Your task to perform on an android device: set an alarm Image 0: 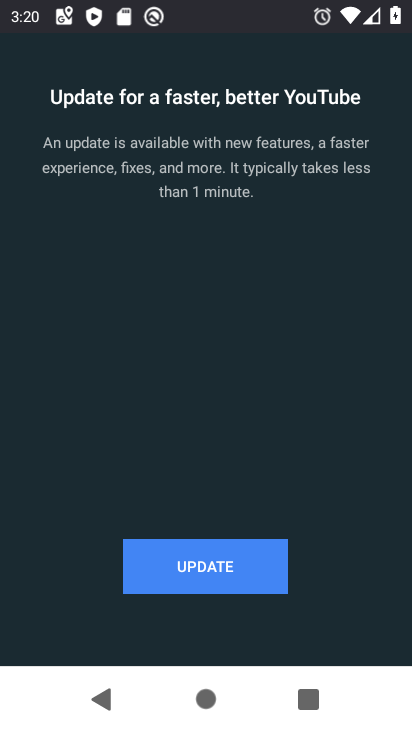
Step 0: press home button
Your task to perform on an android device: set an alarm Image 1: 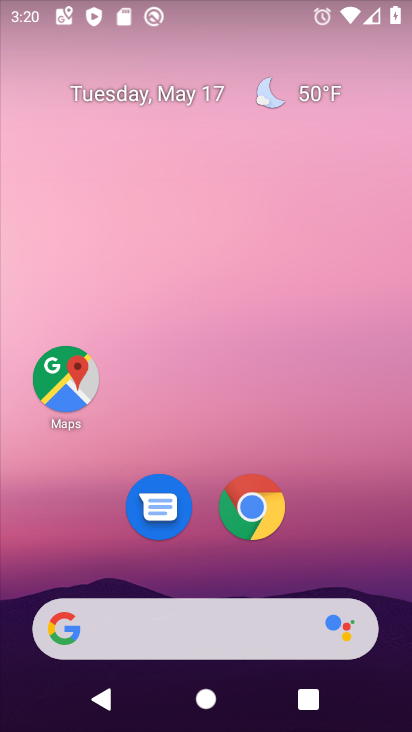
Step 1: drag from (333, 538) to (169, 57)
Your task to perform on an android device: set an alarm Image 2: 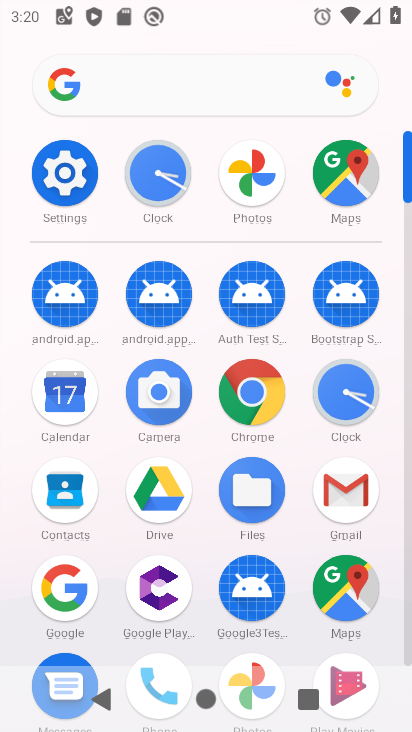
Step 2: click (162, 180)
Your task to perform on an android device: set an alarm Image 3: 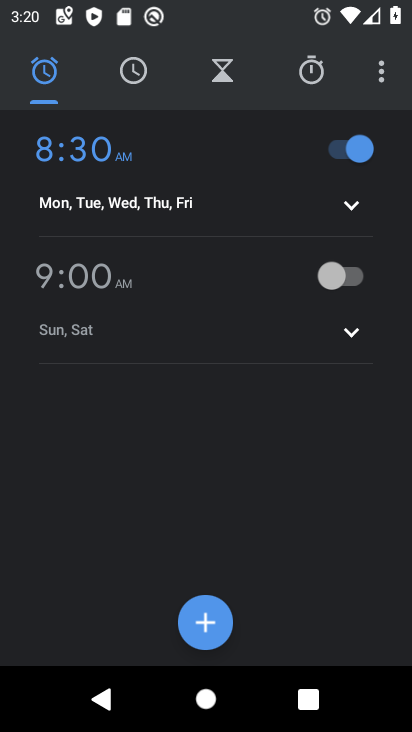
Step 3: click (340, 279)
Your task to perform on an android device: set an alarm Image 4: 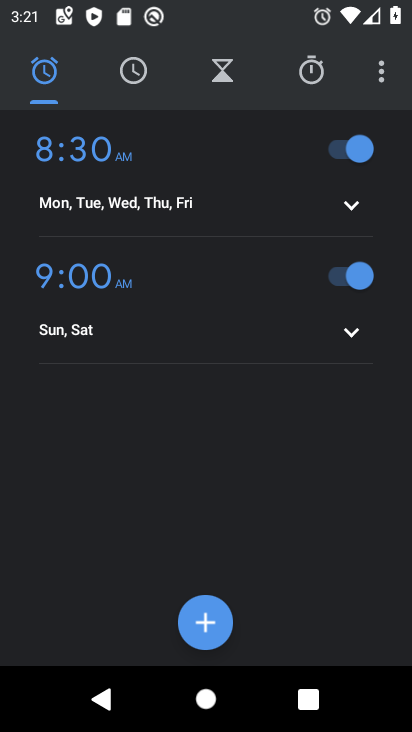
Step 4: task complete